Your task to perform on an android device: Go to Maps Image 0: 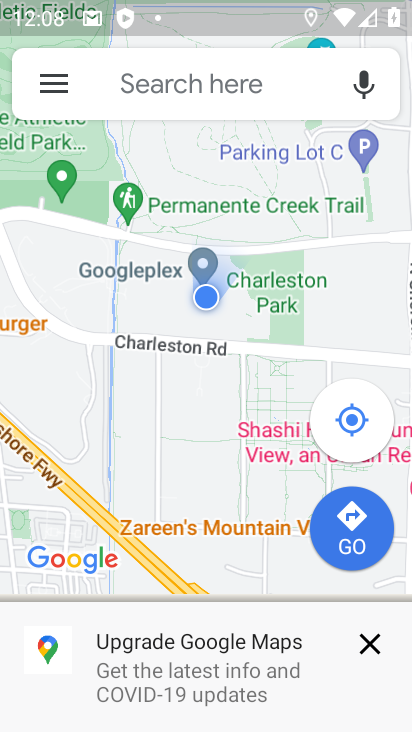
Step 0: task complete